Your task to perform on an android device: open app "Facebook" (install if not already installed) and enter user name: "resultants@gmail.com" and password: "earned" Image 0: 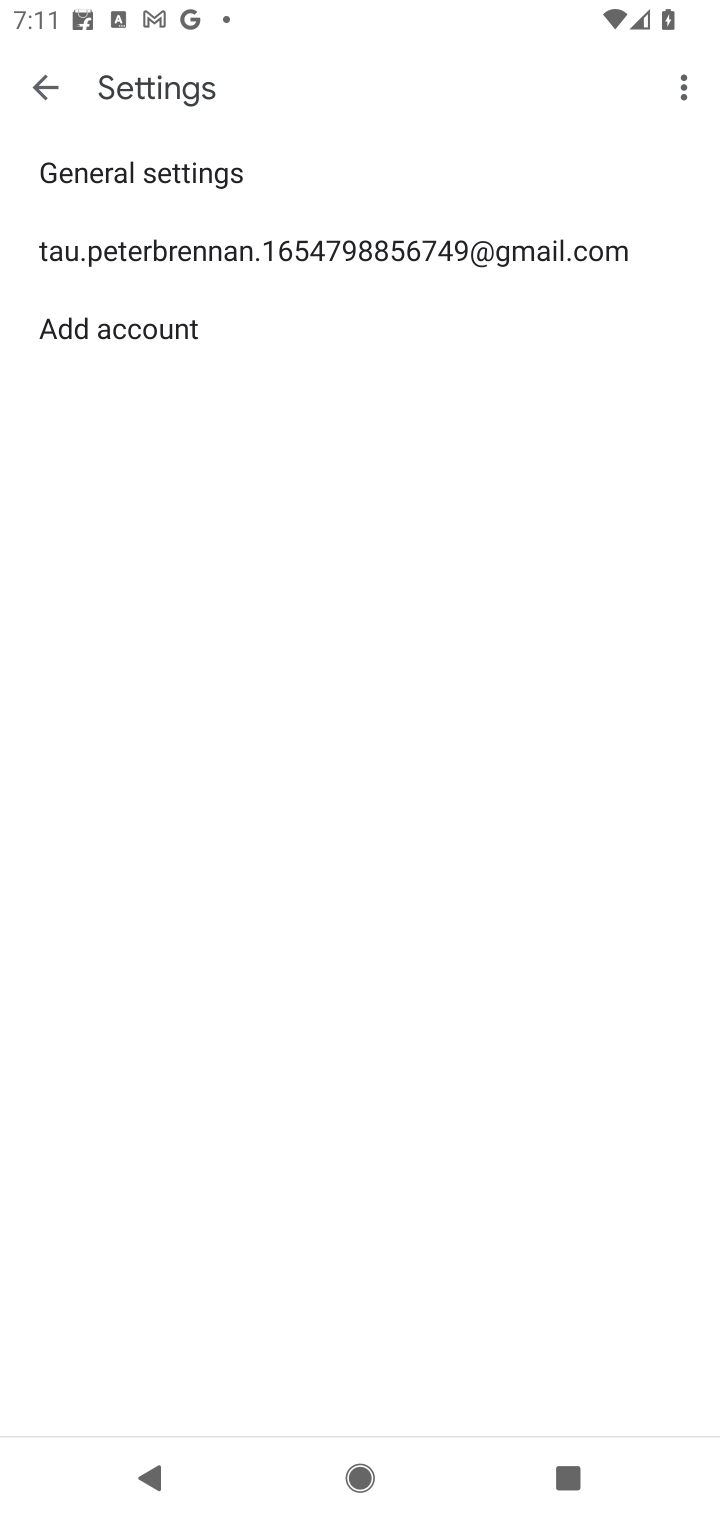
Step 0: press home button
Your task to perform on an android device: open app "Facebook" (install if not already installed) and enter user name: "resultants@gmail.com" and password: "earned" Image 1: 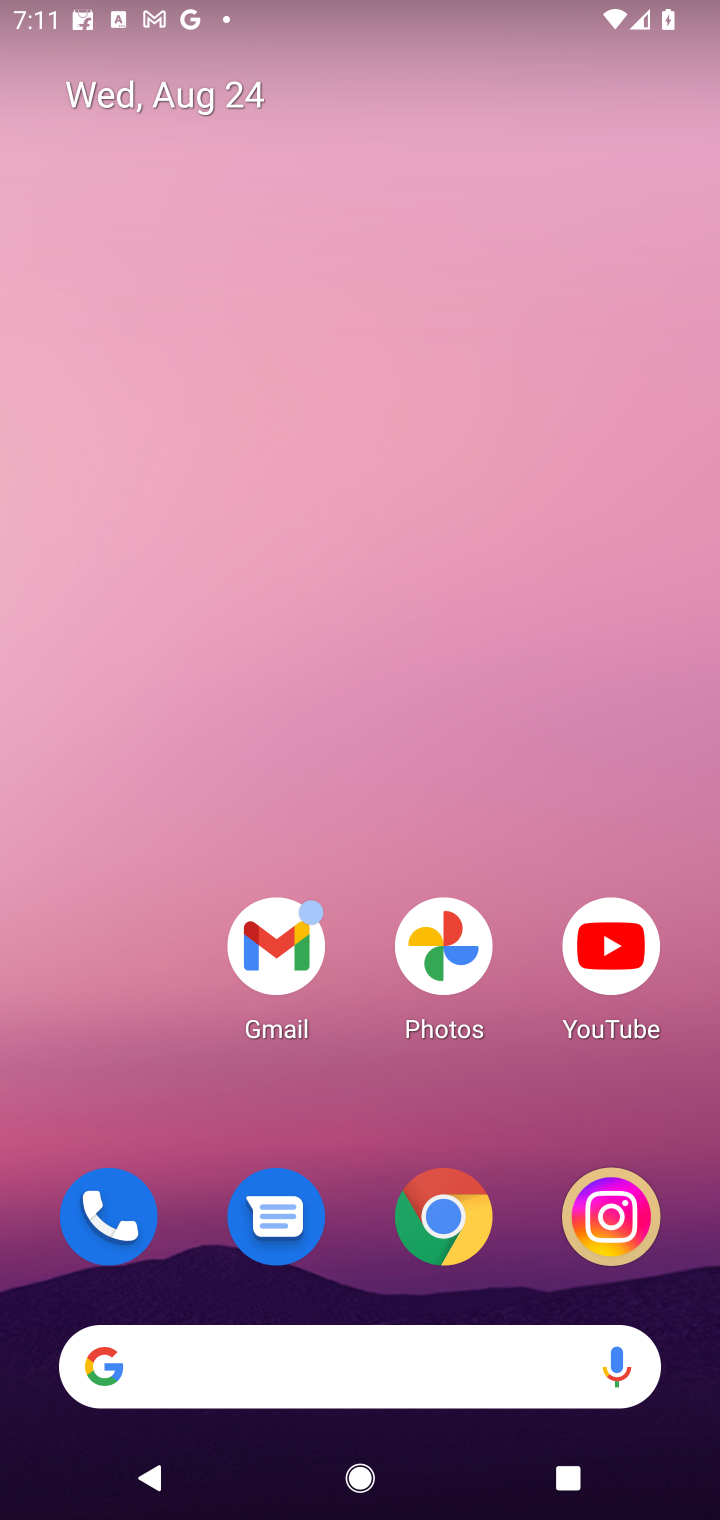
Step 1: click (416, 306)
Your task to perform on an android device: open app "Facebook" (install if not already installed) and enter user name: "resultants@gmail.com" and password: "earned" Image 2: 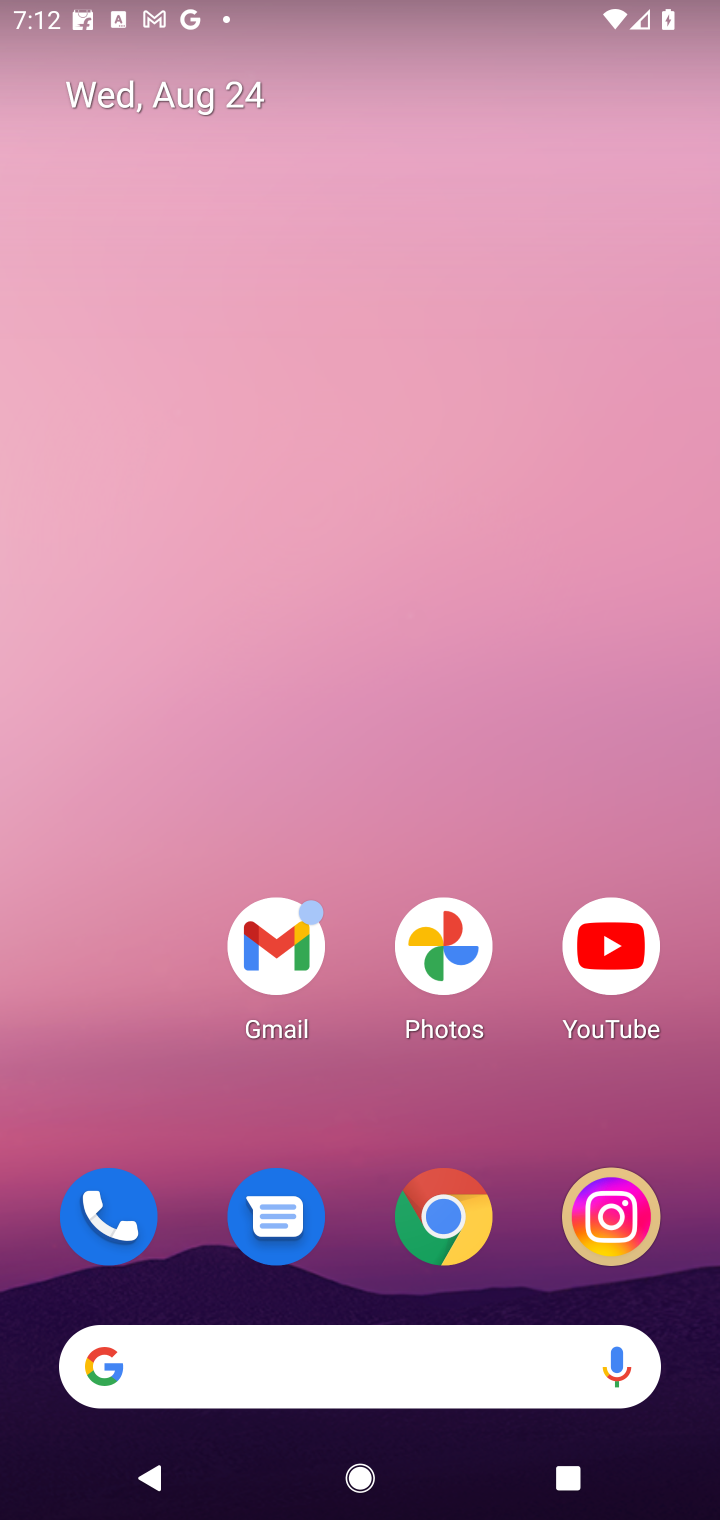
Step 2: drag from (379, 1095) to (454, 191)
Your task to perform on an android device: open app "Facebook" (install if not already installed) and enter user name: "resultants@gmail.com" and password: "earned" Image 3: 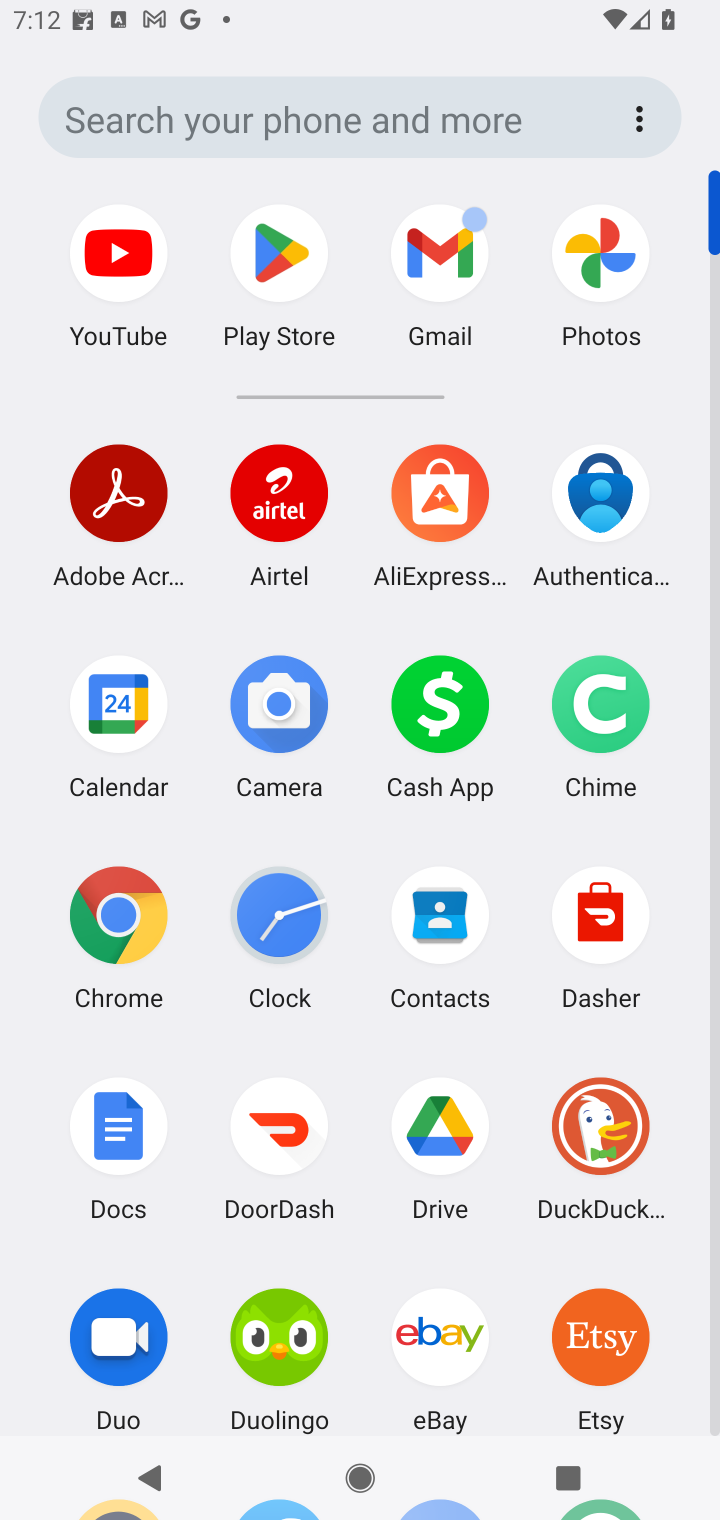
Step 3: click (301, 268)
Your task to perform on an android device: open app "Facebook" (install if not already installed) and enter user name: "resultants@gmail.com" and password: "earned" Image 4: 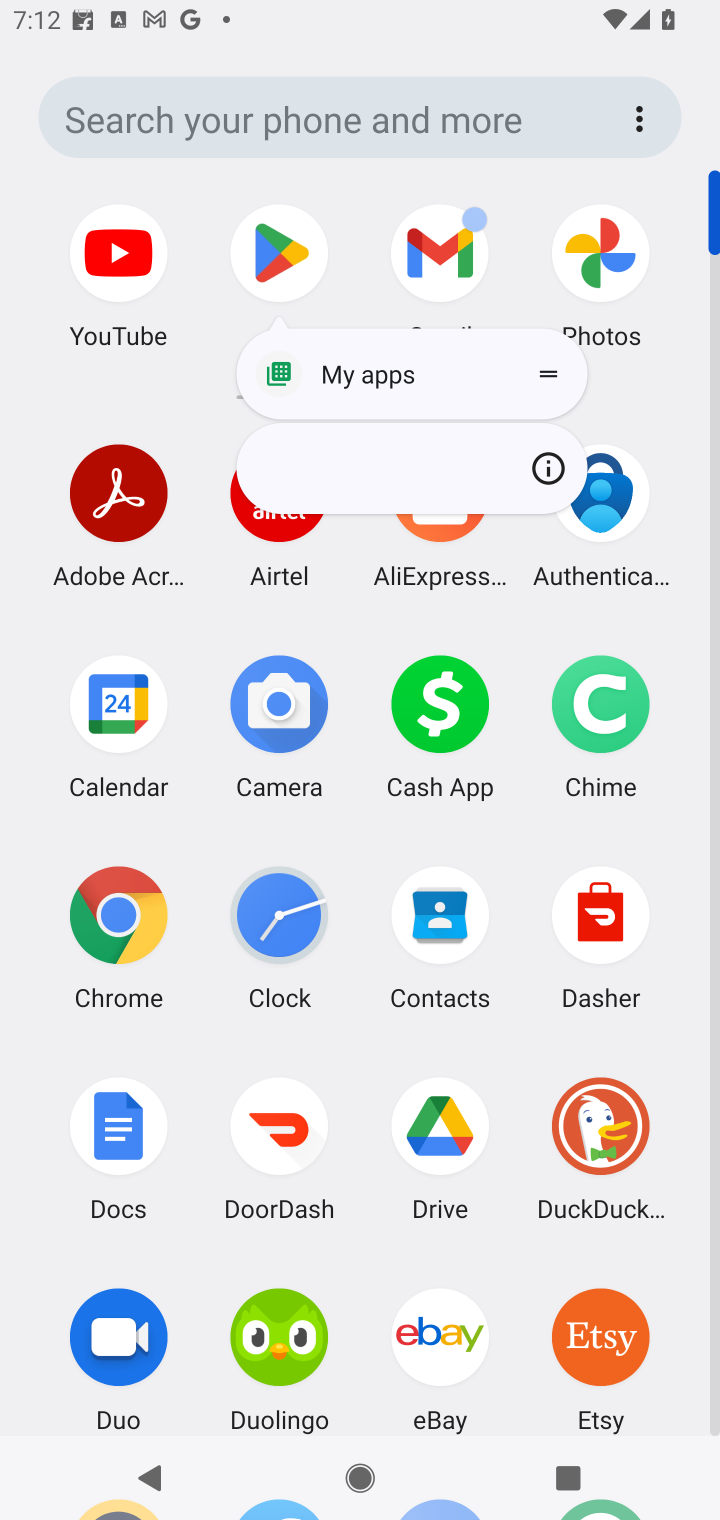
Step 4: click (249, 243)
Your task to perform on an android device: open app "Facebook" (install if not already installed) and enter user name: "resultants@gmail.com" and password: "earned" Image 5: 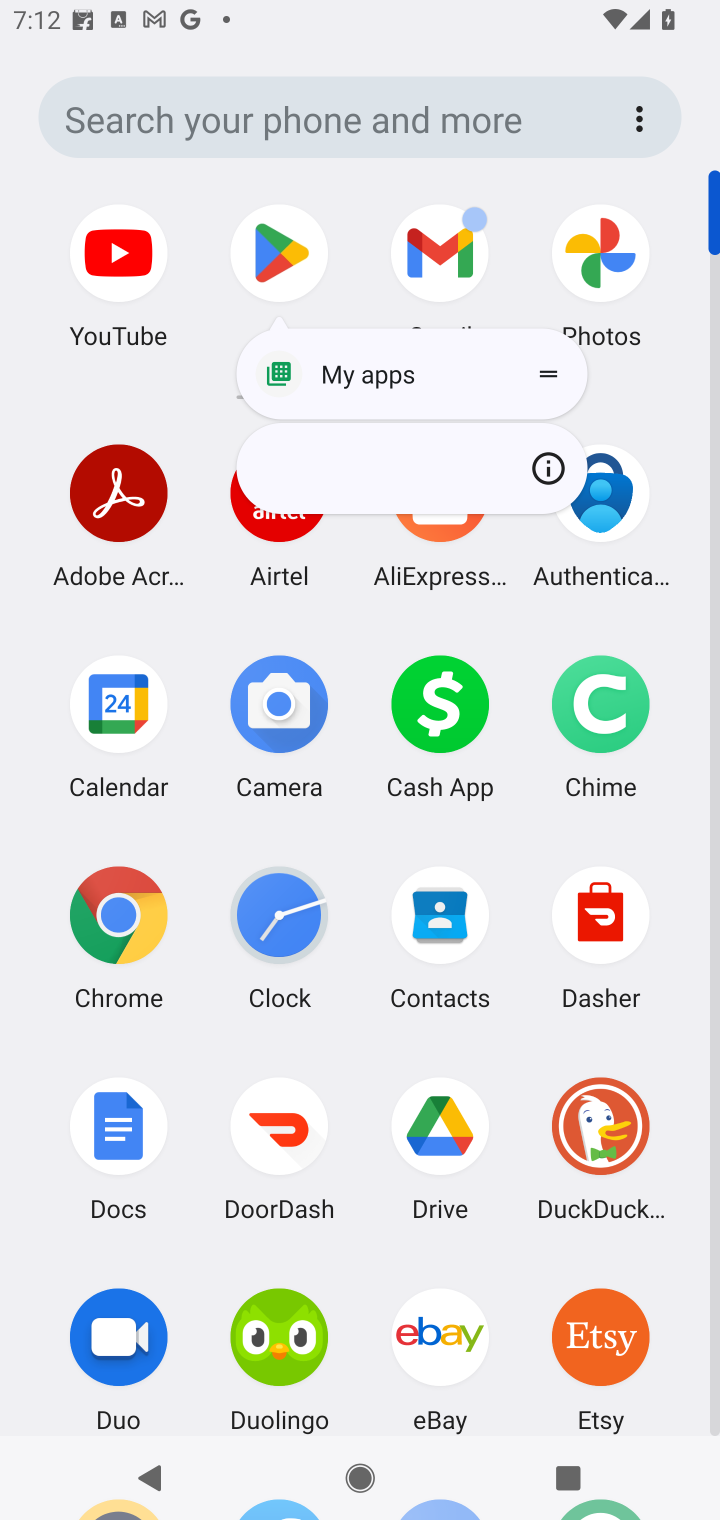
Step 5: click (261, 233)
Your task to perform on an android device: open app "Facebook" (install if not already installed) and enter user name: "resultants@gmail.com" and password: "earned" Image 6: 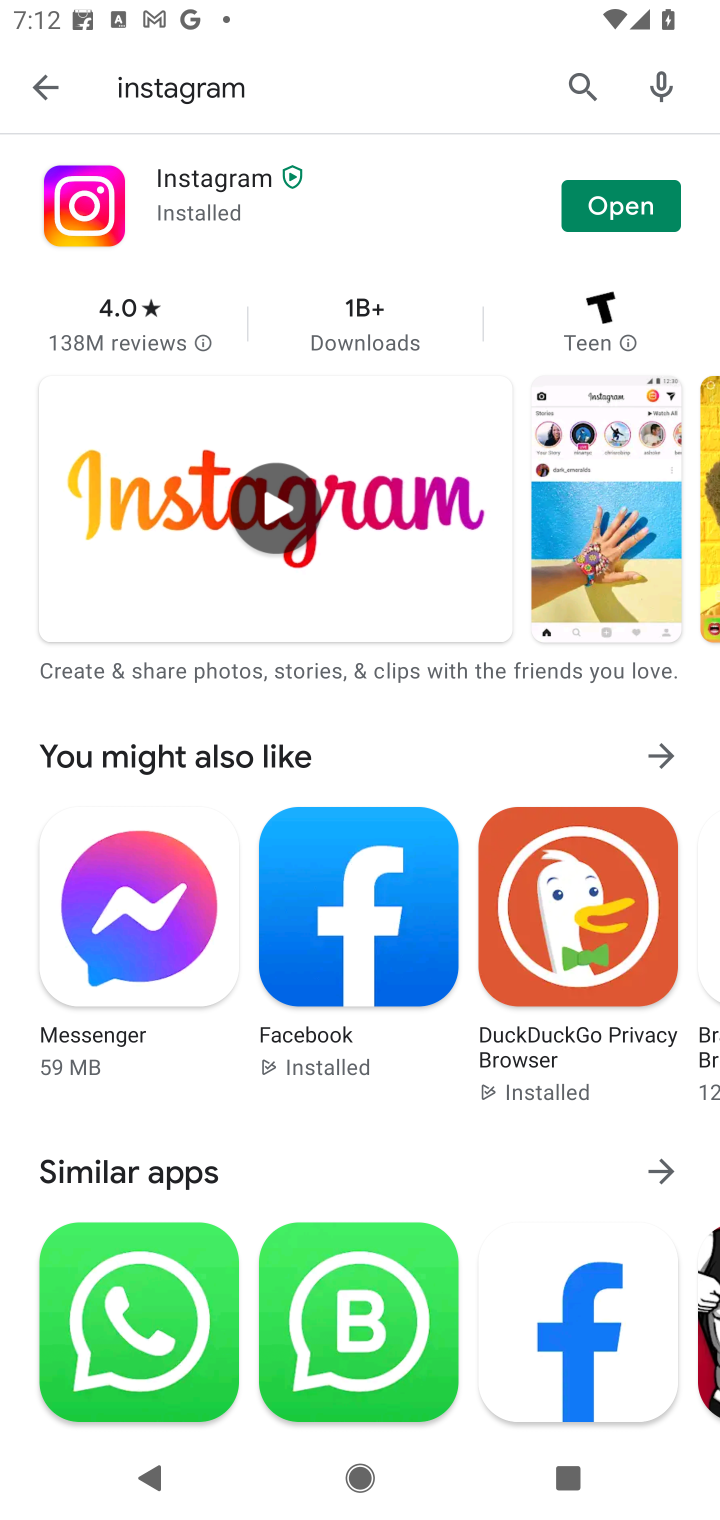
Step 6: click (559, 72)
Your task to perform on an android device: open app "Facebook" (install if not already installed) and enter user name: "resultants@gmail.com" and password: "earned" Image 7: 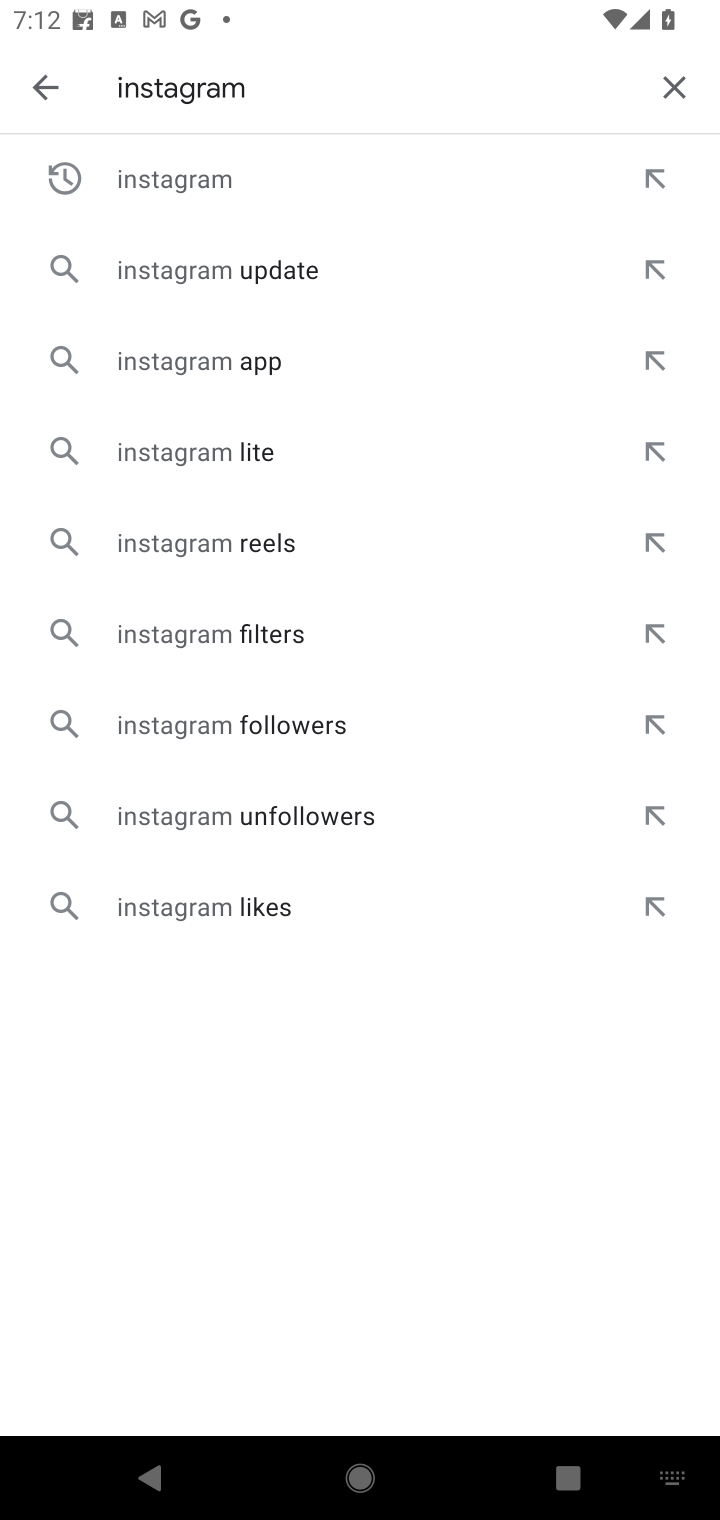
Step 7: click (667, 76)
Your task to perform on an android device: open app "Facebook" (install if not already installed) and enter user name: "resultants@gmail.com" and password: "earned" Image 8: 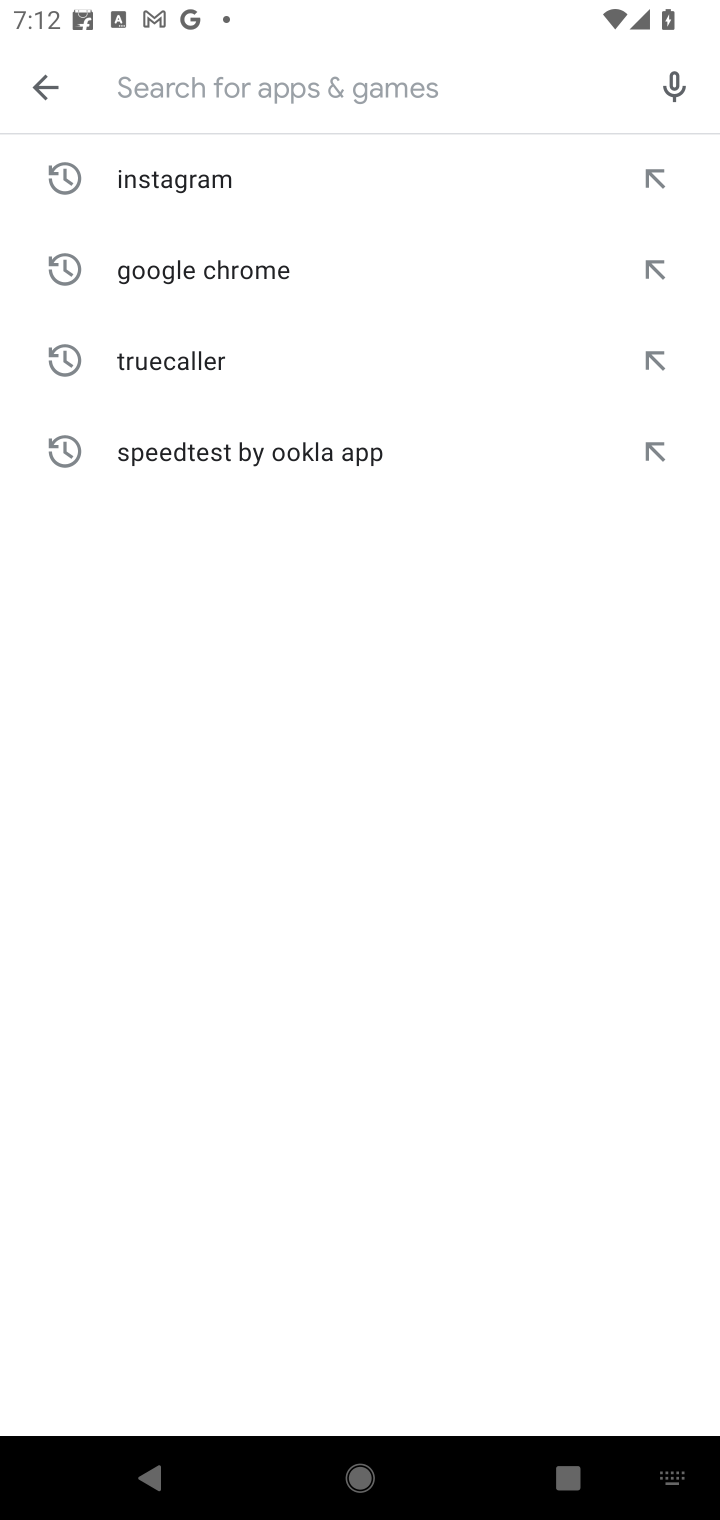
Step 8: type "Facebook"
Your task to perform on an android device: open app "Facebook" (install if not already installed) and enter user name: "resultants@gmail.com" and password: "earned" Image 9: 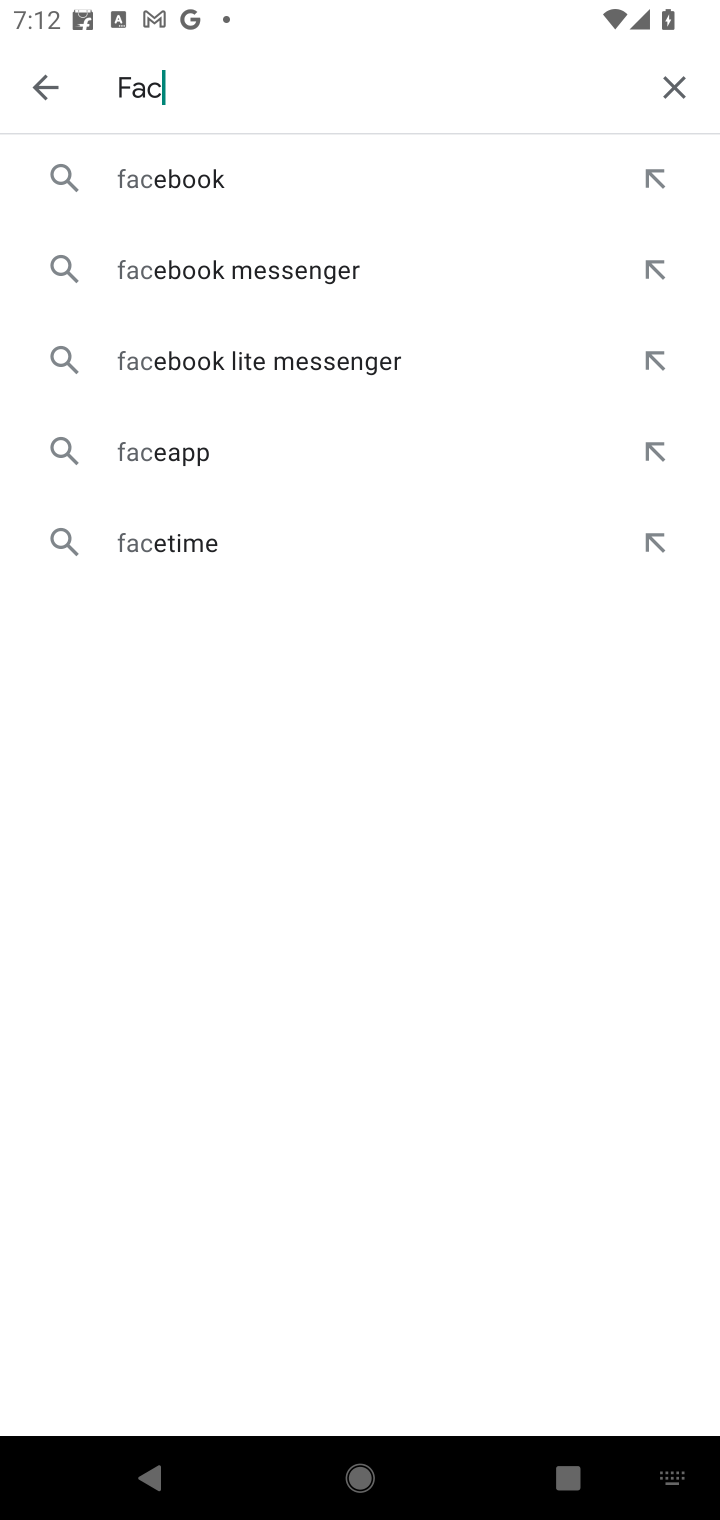
Step 9: type ""
Your task to perform on an android device: open app "Facebook" (install if not already installed) and enter user name: "resultants@gmail.com" and password: "earned" Image 10: 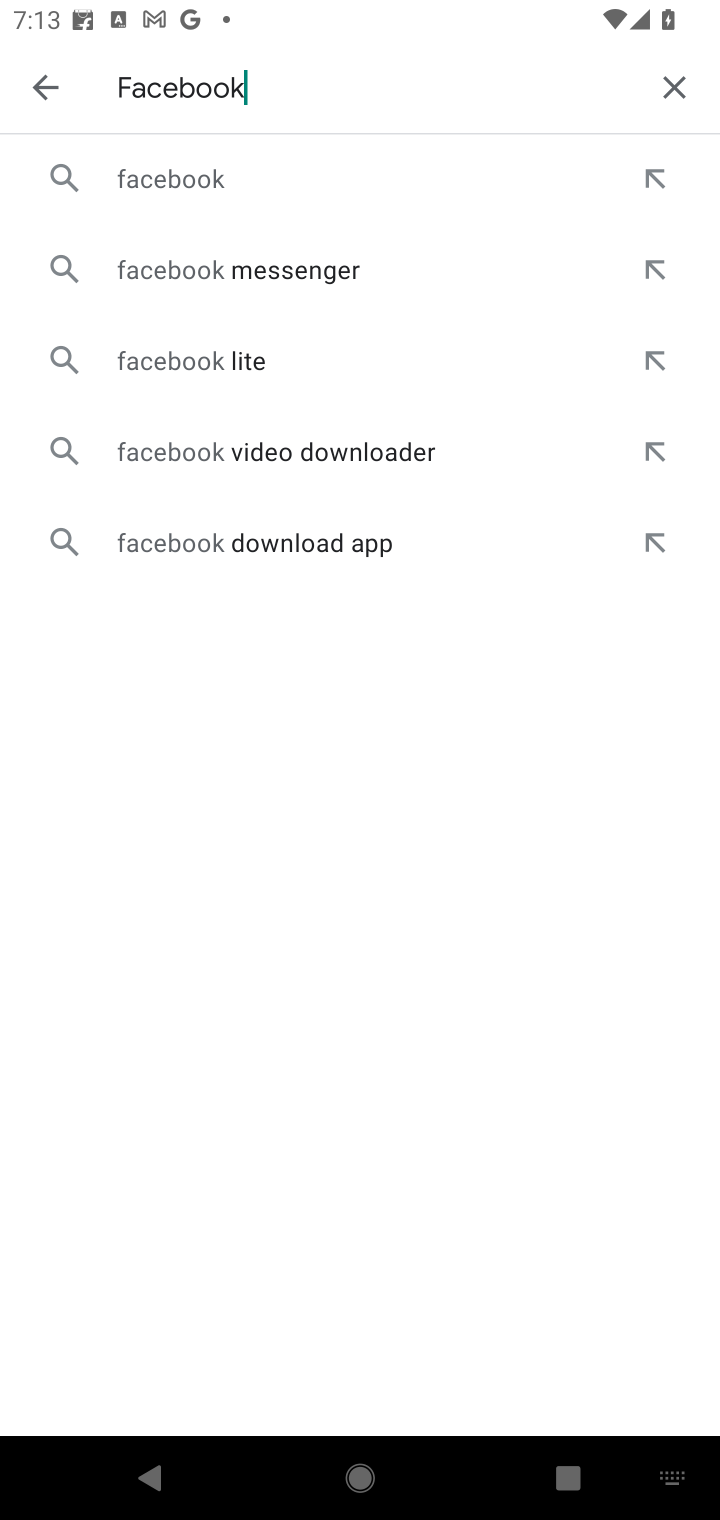
Step 10: click (243, 174)
Your task to perform on an android device: open app "Facebook" (install if not already installed) and enter user name: "resultants@gmail.com" and password: "earned" Image 11: 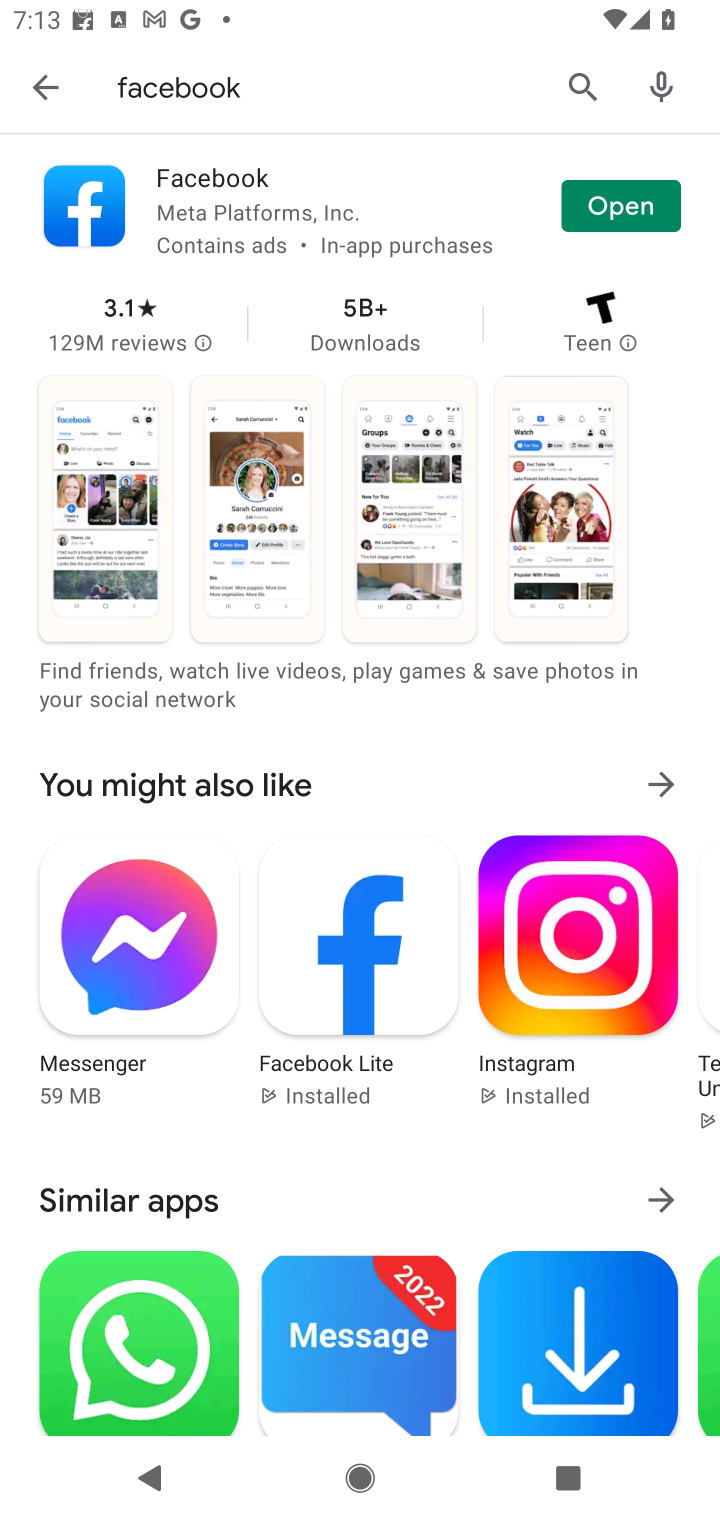
Step 11: click (617, 206)
Your task to perform on an android device: open app "Facebook" (install if not already installed) and enter user name: "resultants@gmail.com" and password: "earned" Image 12: 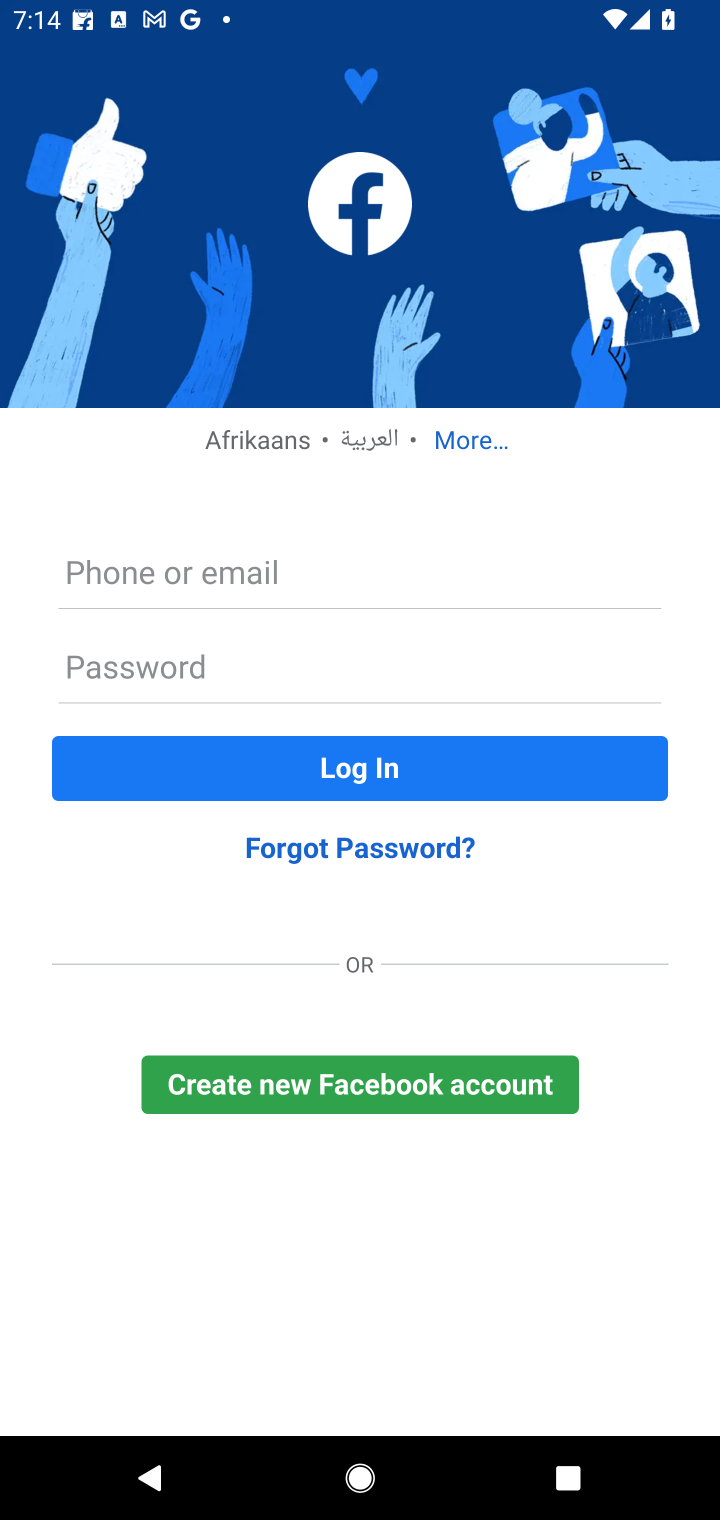
Step 12: task complete